Your task to perform on an android device: empty trash in google photos Image 0: 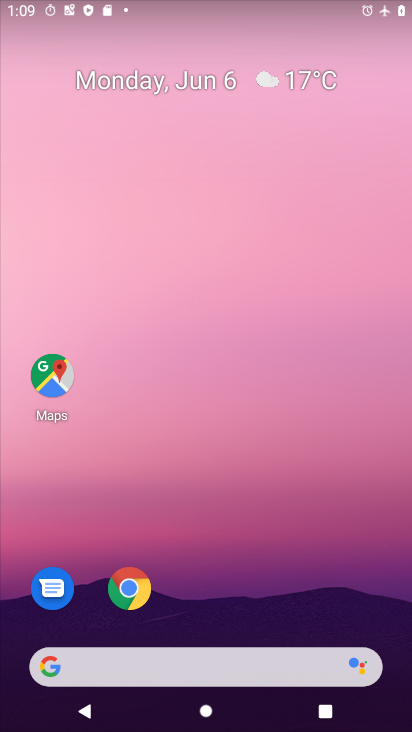
Step 0: drag from (276, 501) to (264, 6)
Your task to perform on an android device: empty trash in google photos Image 1: 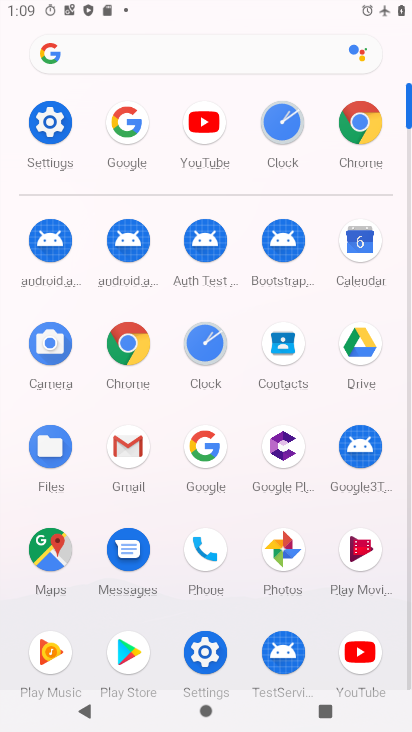
Step 1: click (289, 551)
Your task to perform on an android device: empty trash in google photos Image 2: 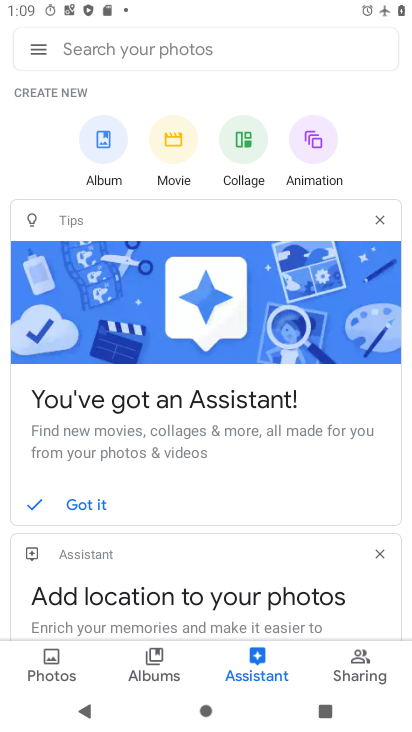
Step 2: click (45, 45)
Your task to perform on an android device: empty trash in google photos Image 3: 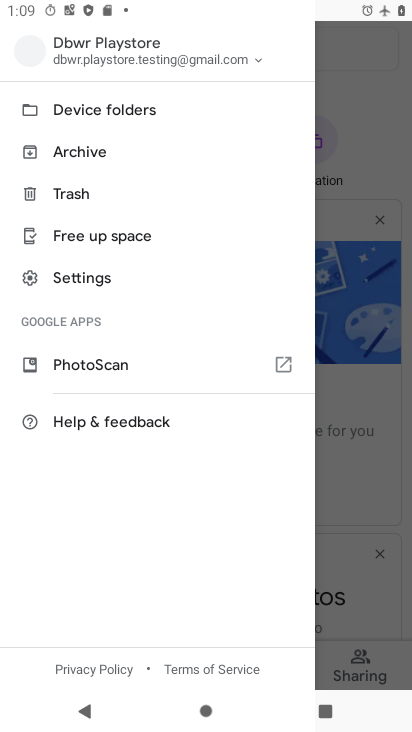
Step 3: click (80, 181)
Your task to perform on an android device: empty trash in google photos Image 4: 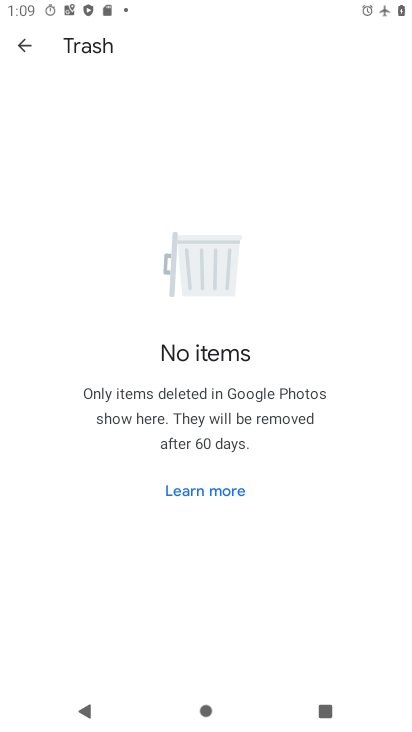
Step 4: task complete